Your task to perform on an android device: open chrome privacy settings Image 0: 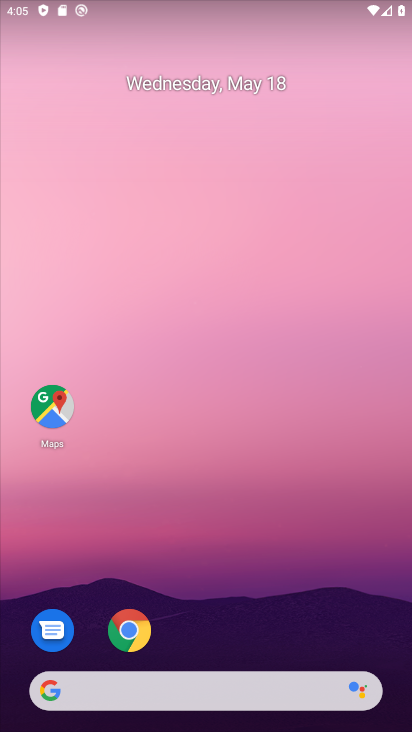
Step 0: drag from (229, 133) to (266, 137)
Your task to perform on an android device: open chrome privacy settings Image 1: 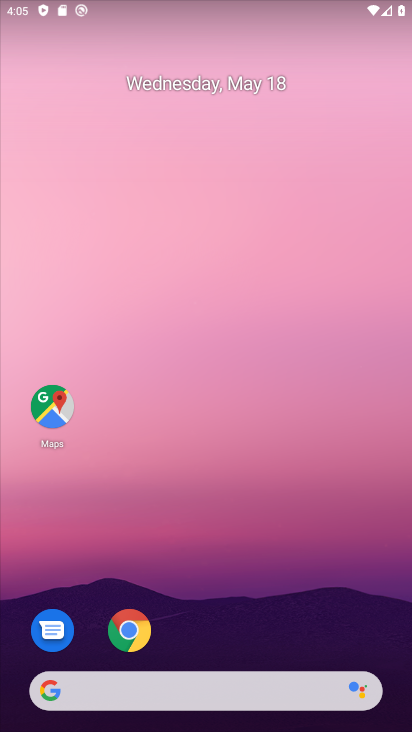
Step 1: drag from (279, 717) to (294, 279)
Your task to perform on an android device: open chrome privacy settings Image 2: 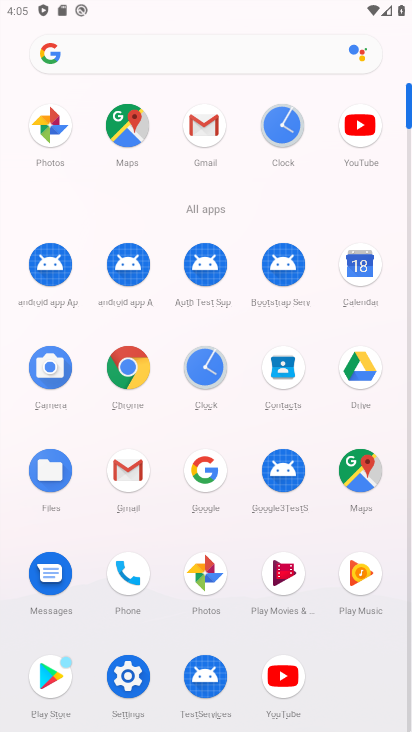
Step 2: click (130, 367)
Your task to perform on an android device: open chrome privacy settings Image 3: 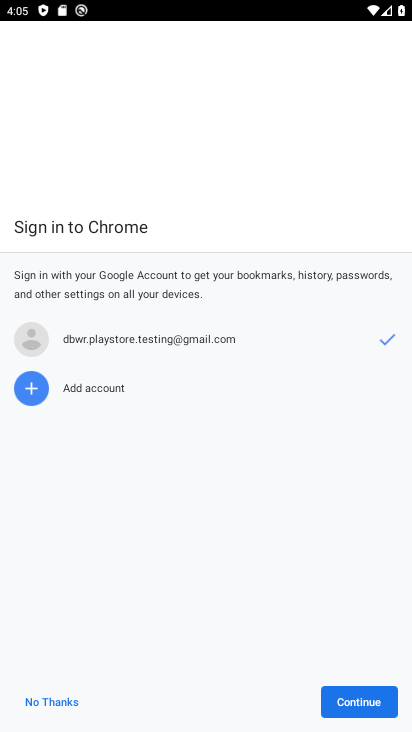
Step 3: click (362, 710)
Your task to perform on an android device: open chrome privacy settings Image 4: 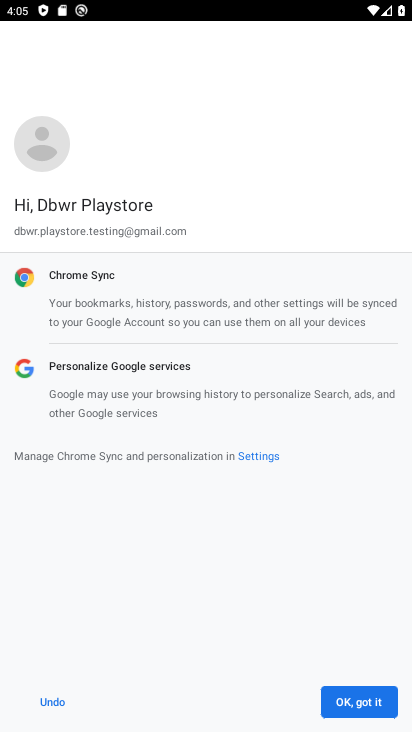
Step 4: click (352, 686)
Your task to perform on an android device: open chrome privacy settings Image 5: 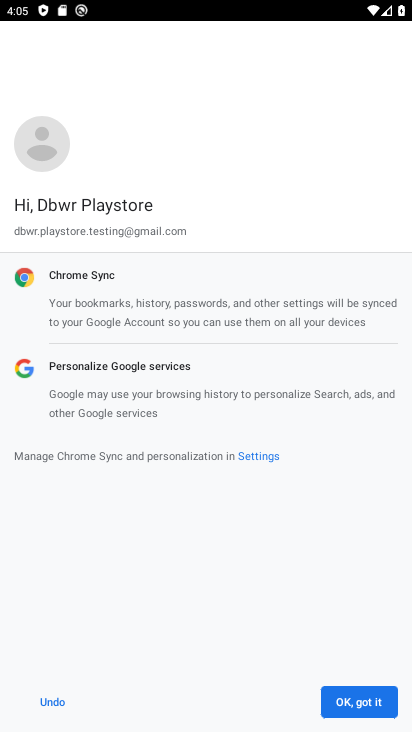
Step 5: click (398, 698)
Your task to perform on an android device: open chrome privacy settings Image 6: 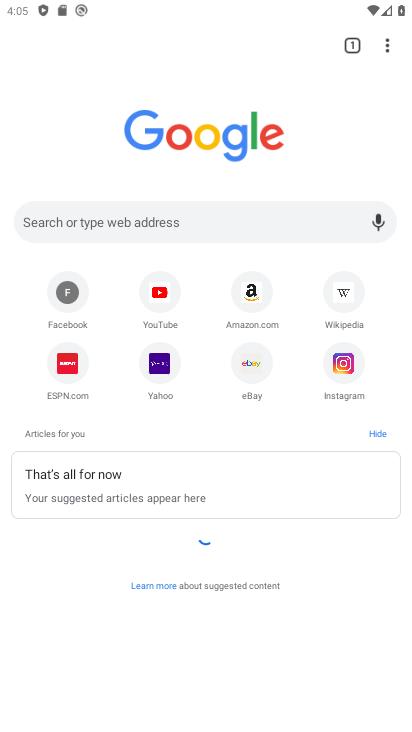
Step 6: click (378, 60)
Your task to perform on an android device: open chrome privacy settings Image 7: 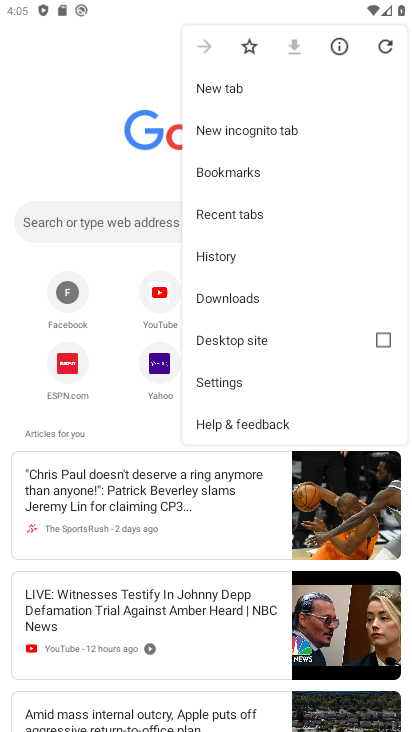
Step 7: click (231, 397)
Your task to perform on an android device: open chrome privacy settings Image 8: 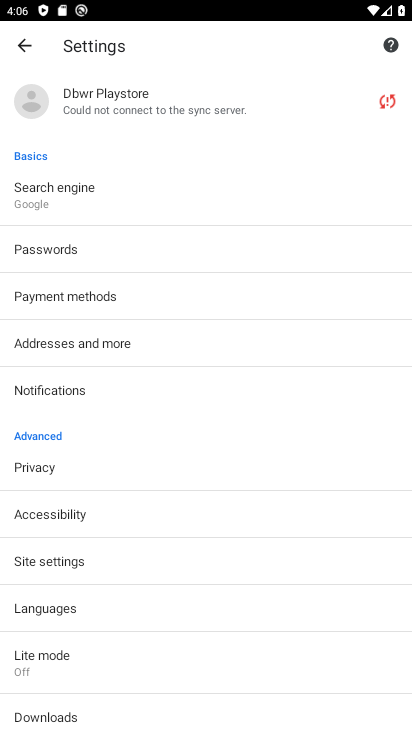
Step 8: click (37, 475)
Your task to perform on an android device: open chrome privacy settings Image 9: 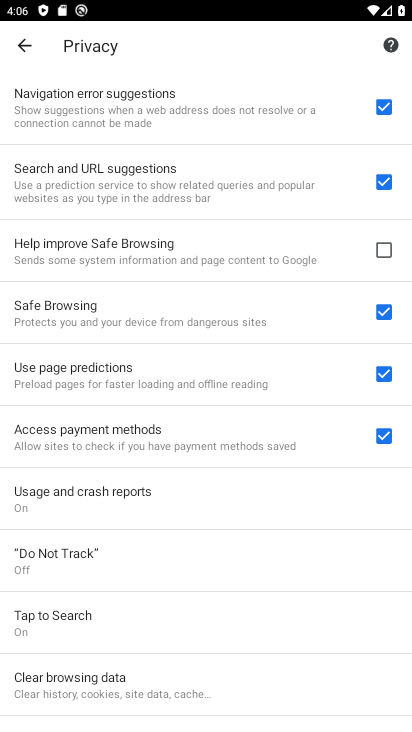
Step 9: task complete